Your task to perform on an android device: toggle wifi Image 0: 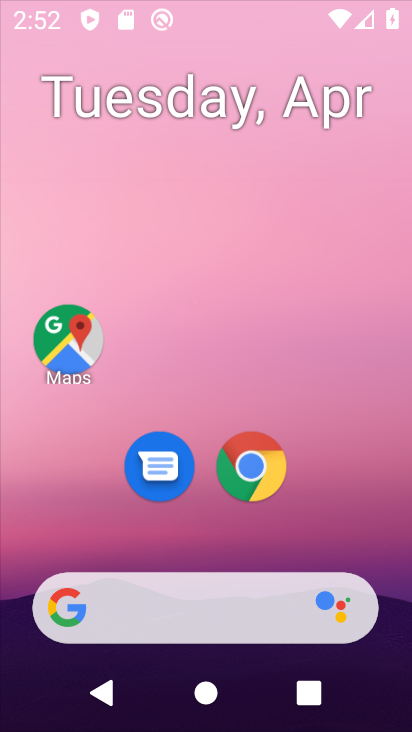
Step 0: drag from (196, 262) to (190, 46)
Your task to perform on an android device: toggle wifi Image 1: 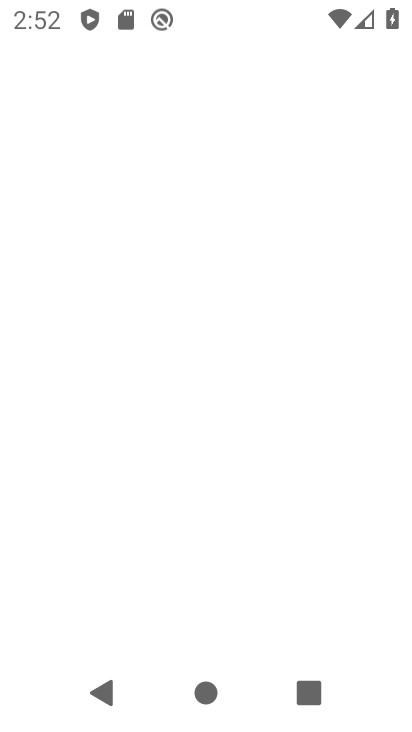
Step 1: press home button
Your task to perform on an android device: toggle wifi Image 2: 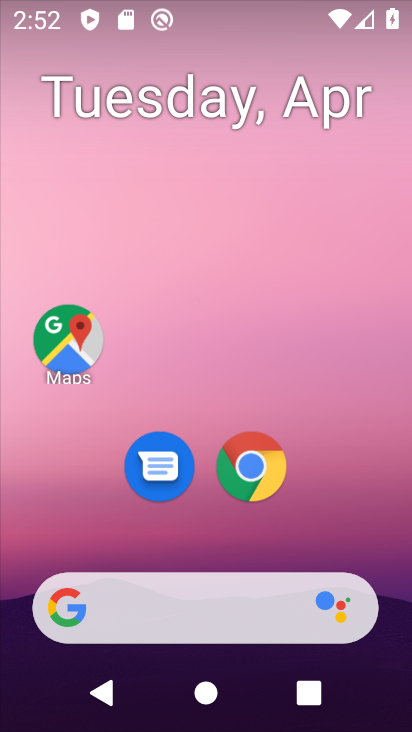
Step 2: drag from (195, 501) to (290, 0)
Your task to perform on an android device: toggle wifi Image 3: 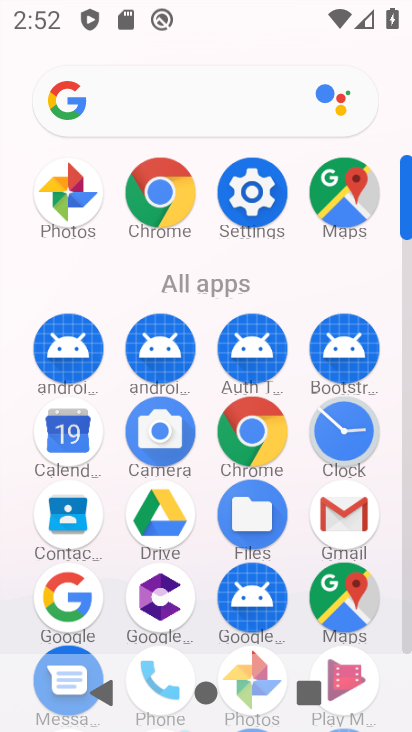
Step 3: click (260, 204)
Your task to perform on an android device: toggle wifi Image 4: 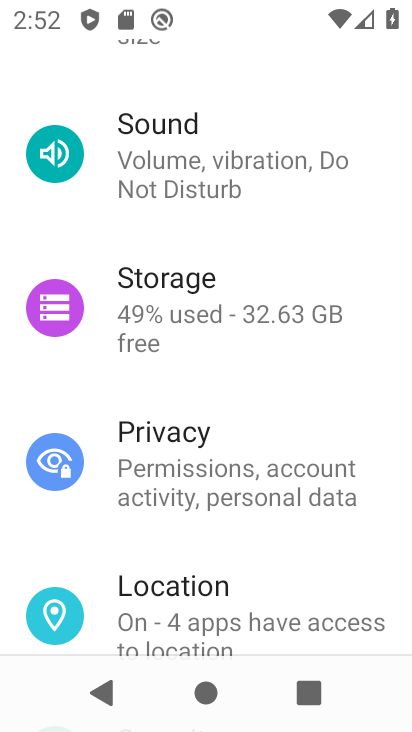
Step 4: drag from (209, 161) to (164, 460)
Your task to perform on an android device: toggle wifi Image 5: 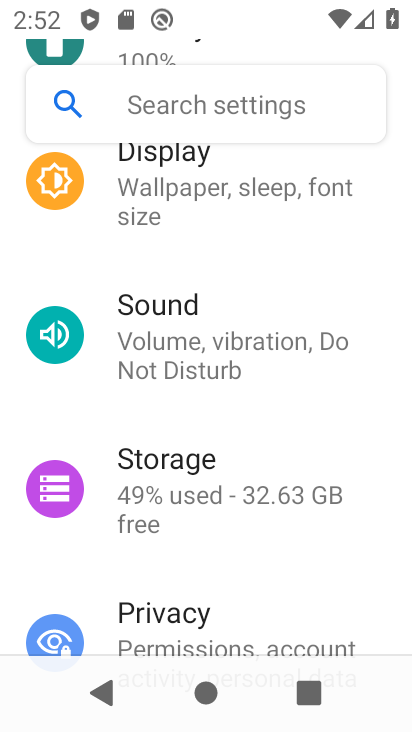
Step 5: drag from (164, 155) to (166, 537)
Your task to perform on an android device: toggle wifi Image 6: 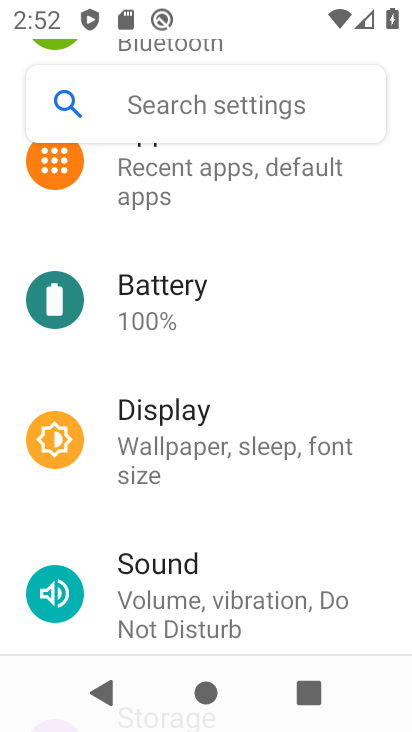
Step 6: drag from (181, 188) to (158, 569)
Your task to perform on an android device: toggle wifi Image 7: 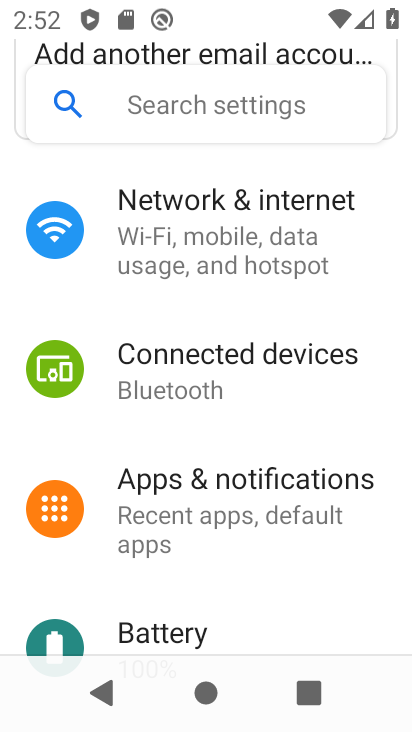
Step 7: click (169, 268)
Your task to perform on an android device: toggle wifi Image 8: 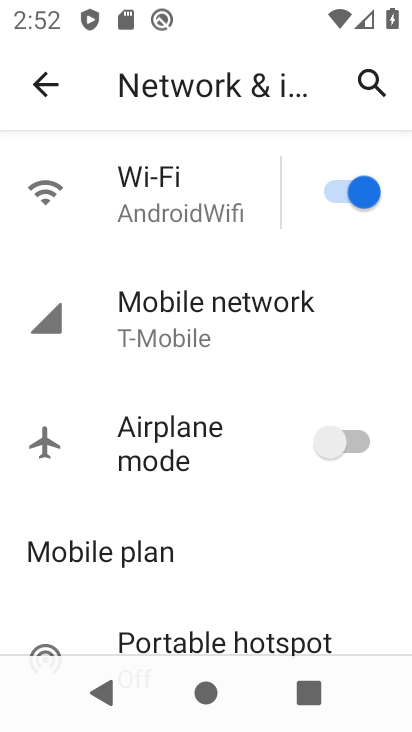
Step 8: click (352, 185)
Your task to perform on an android device: toggle wifi Image 9: 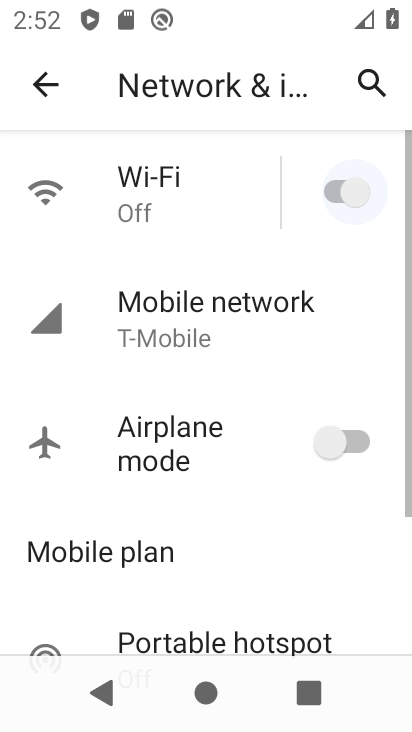
Step 9: task complete